Your task to perform on an android device: Go to network settings Image 0: 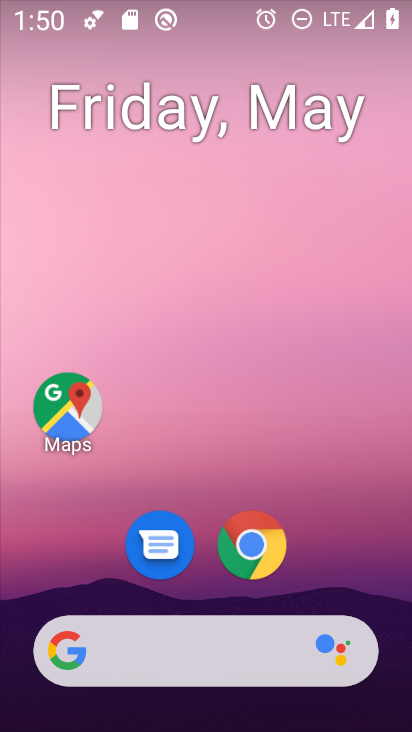
Step 0: drag from (313, 512) to (306, 238)
Your task to perform on an android device: Go to network settings Image 1: 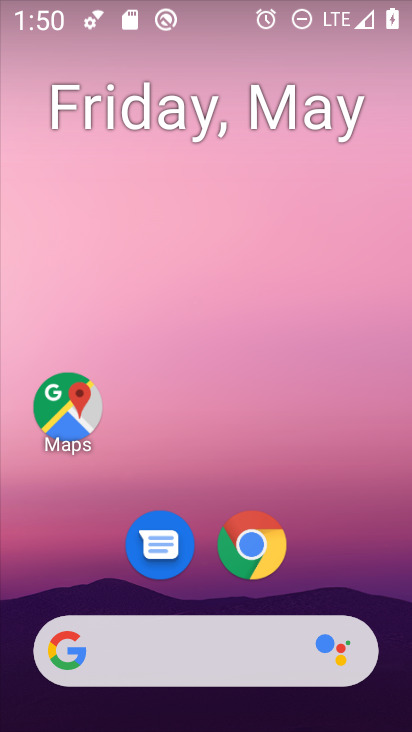
Step 1: click (297, 219)
Your task to perform on an android device: Go to network settings Image 2: 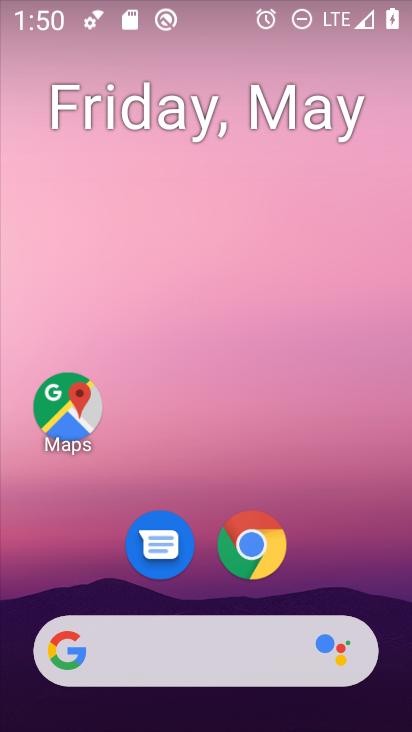
Step 2: drag from (312, 618) to (268, 320)
Your task to perform on an android device: Go to network settings Image 3: 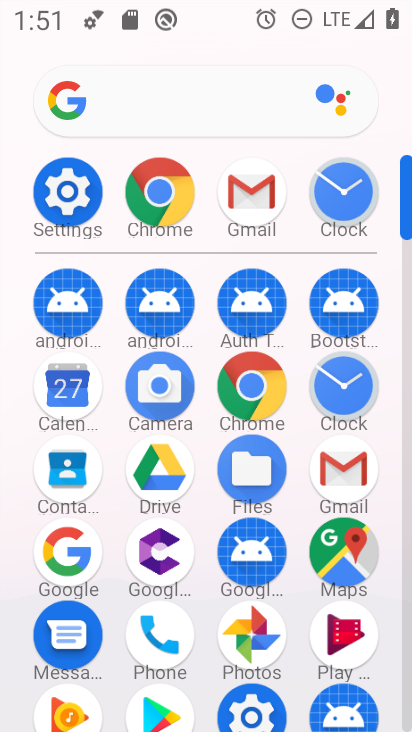
Step 3: click (74, 185)
Your task to perform on an android device: Go to network settings Image 4: 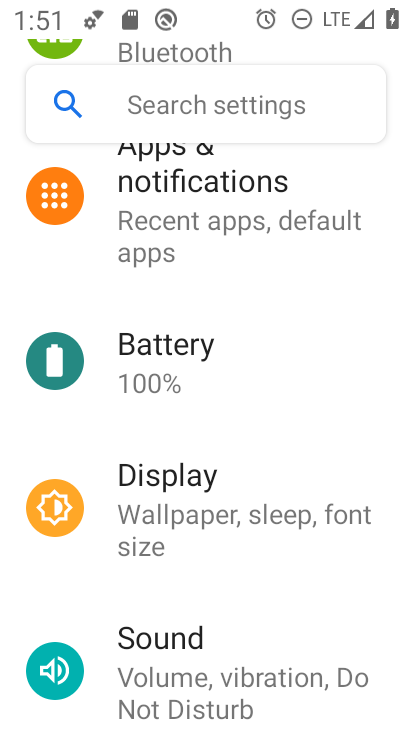
Step 4: drag from (184, 192) to (241, 700)
Your task to perform on an android device: Go to network settings Image 5: 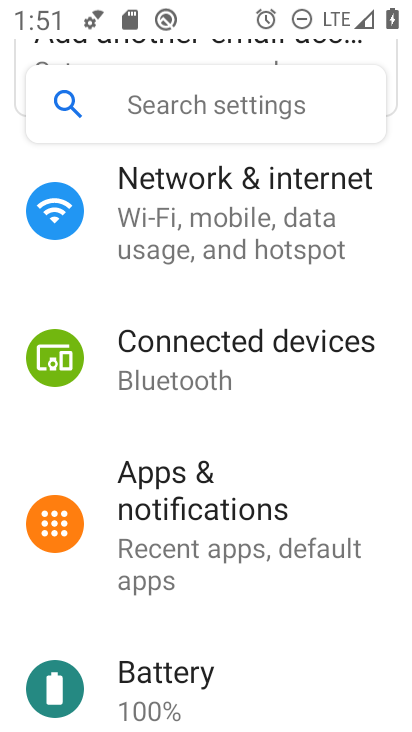
Step 5: click (177, 233)
Your task to perform on an android device: Go to network settings Image 6: 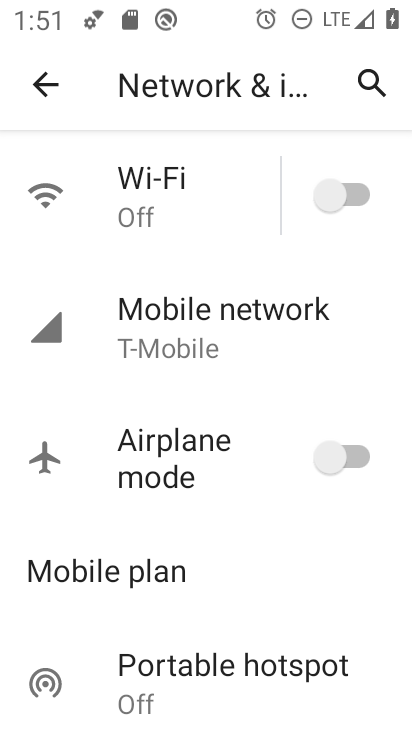
Step 6: task complete